Your task to perform on an android device: check storage Image 0: 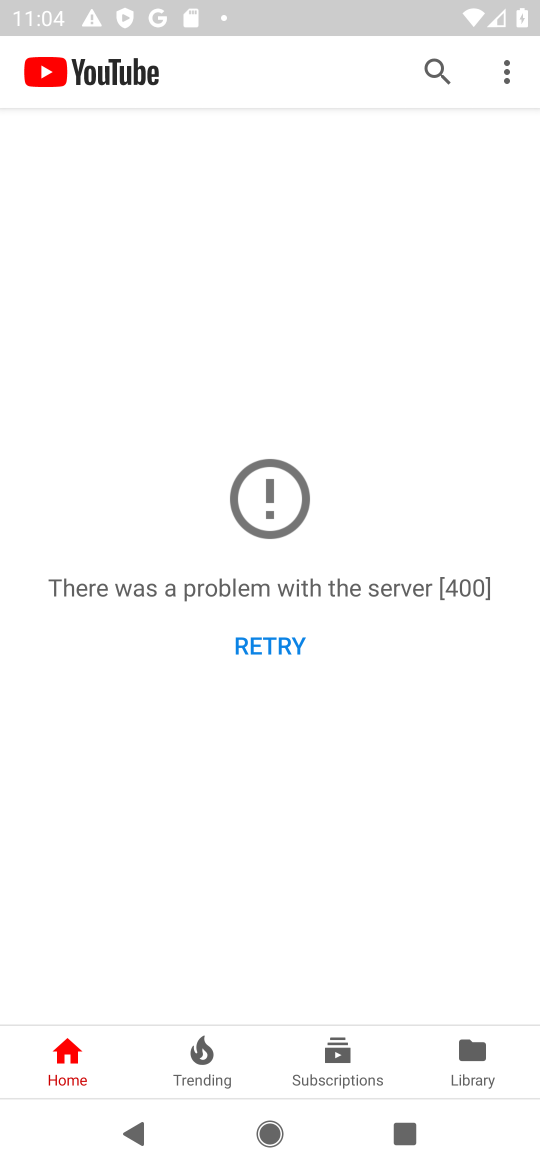
Step 0: press home button
Your task to perform on an android device: check storage Image 1: 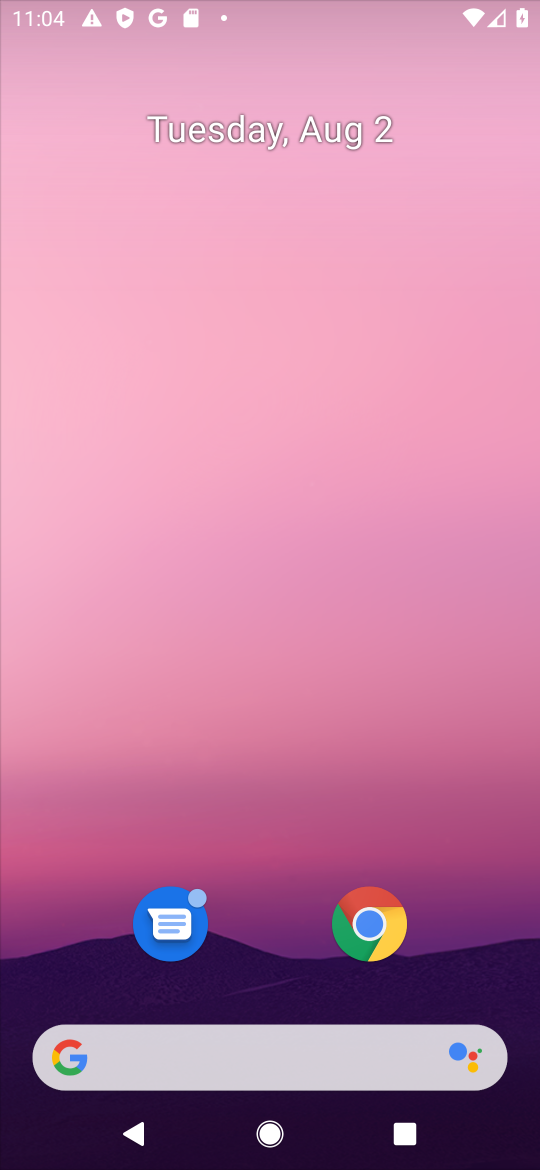
Step 1: drag from (274, 970) to (334, 325)
Your task to perform on an android device: check storage Image 2: 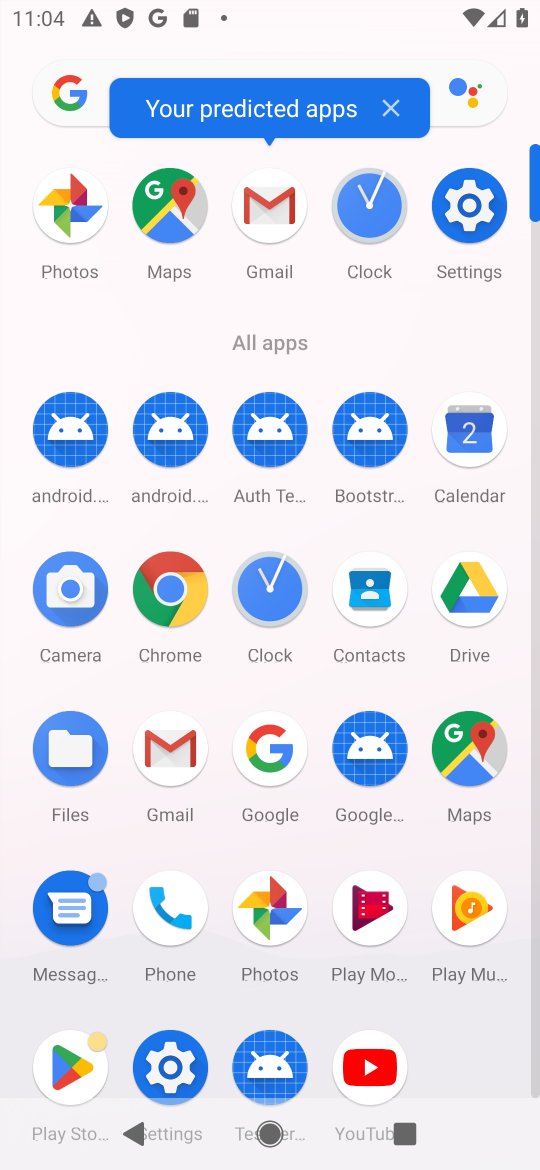
Step 2: click (452, 192)
Your task to perform on an android device: check storage Image 3: 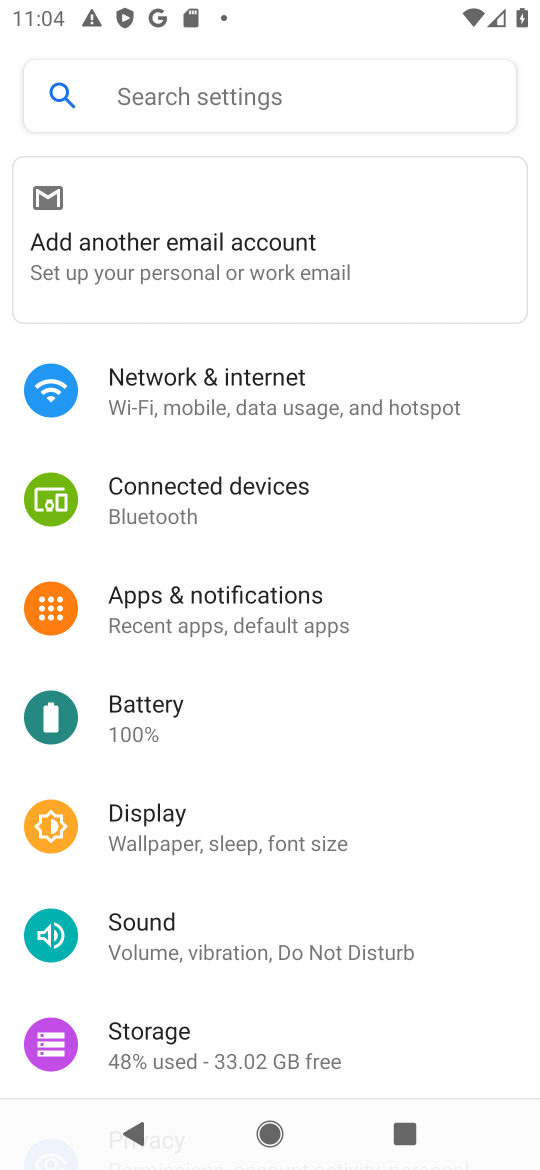
Step 3: click (231, 1029)
Your task to perform on an android device: check storage Image 4: 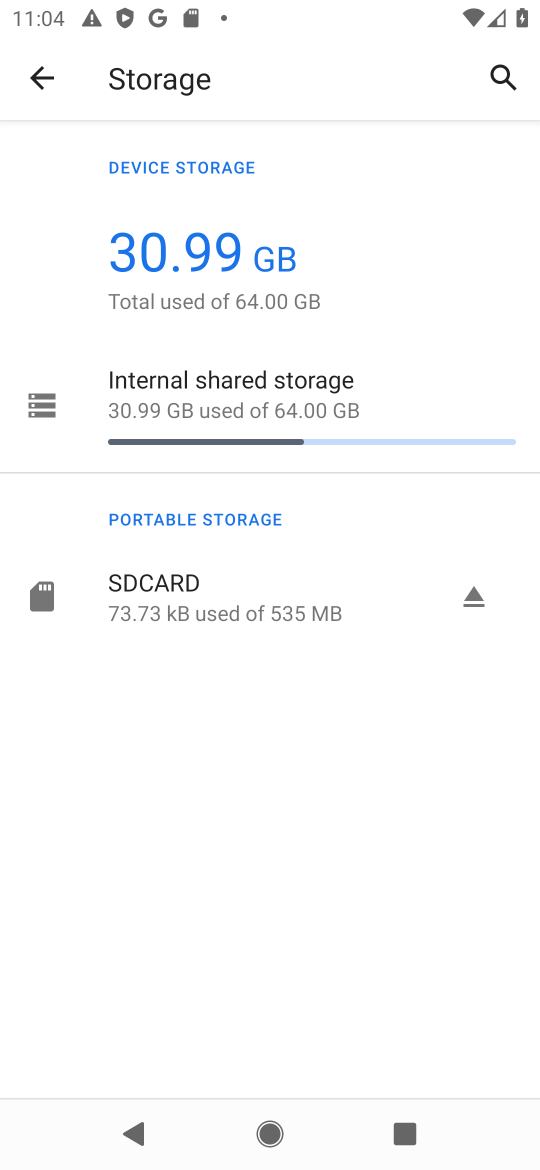
Step 4: task complete